Your task to perform on an android device: Go to Android settings Image 0: 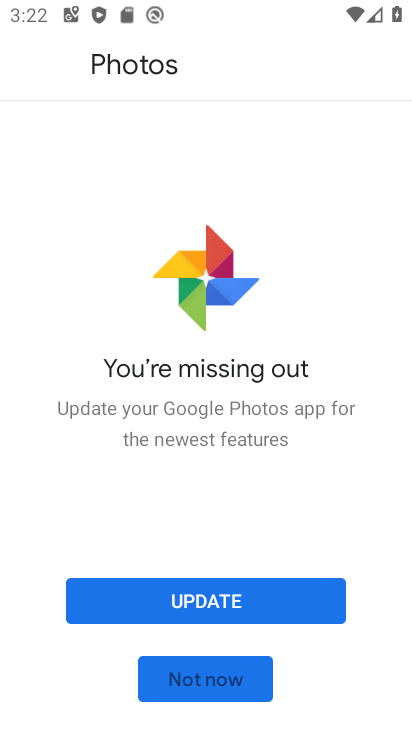
Step 0: press home button
Your task to perform on an android device: Go to Android settings Image 1: 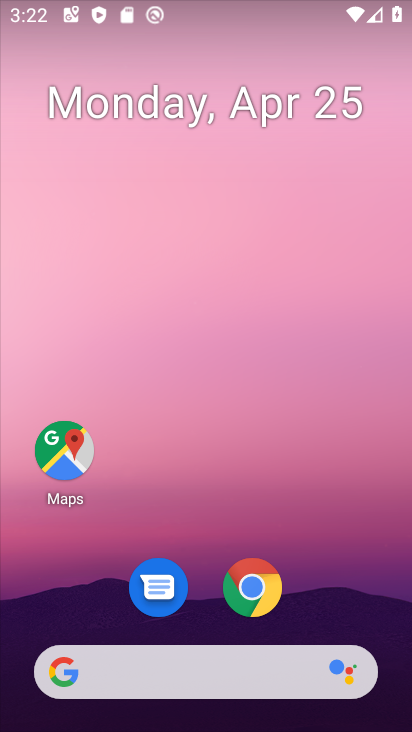
Step 1: drag from (208, 592) to (226, 153)
Your task to perform on an android device: Go to Android settings Image 2: 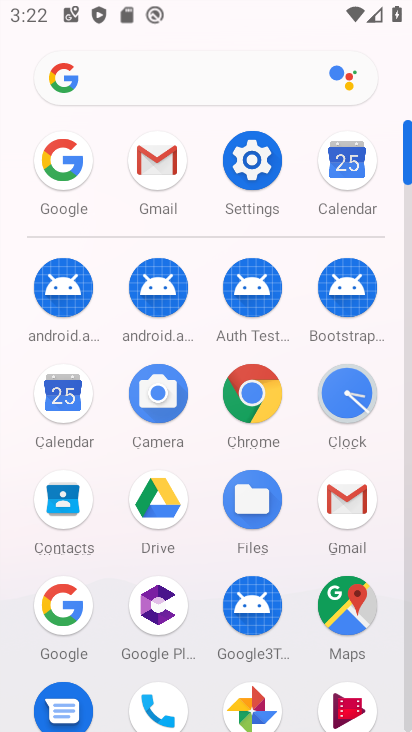
Step 2: click (250, 162)
Your task to perform on an android device: Go to Android settings Image 3: 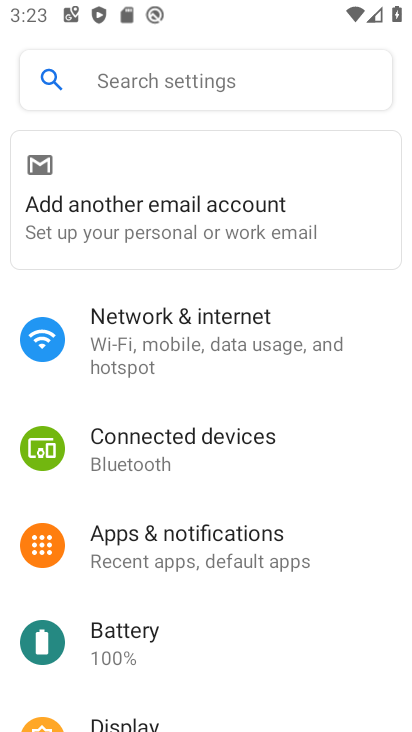
Step 3: task complete